Your task to perform on an android device: Go to internet settings Image 0: 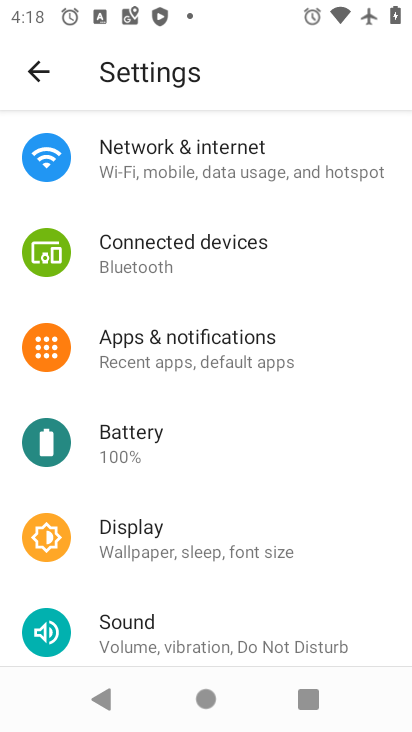
Step 0: click (145, 143)
Your task to perform on an android device: Go to internet settings Image 1: 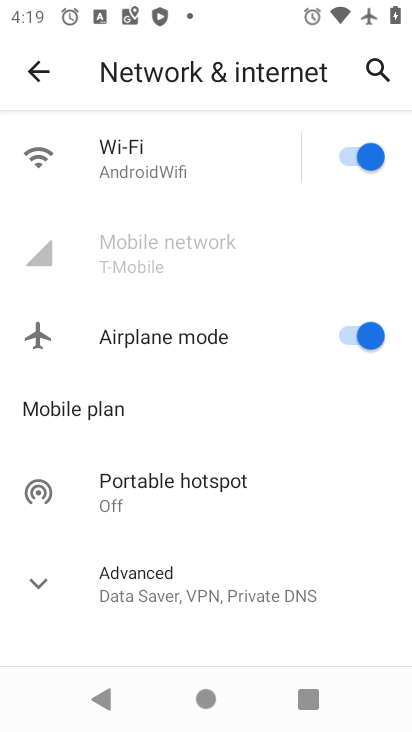
Step 1: drag from (248, 530) to (280, 206)
Your task to perform on an android device: Go to internet settings Image 2: 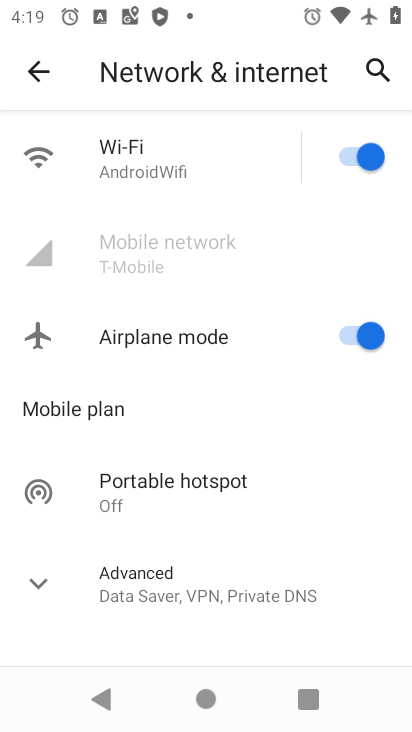
Step 2: click (35, 578)
Your task to perform on an android device: Go to internet settings Image 3: 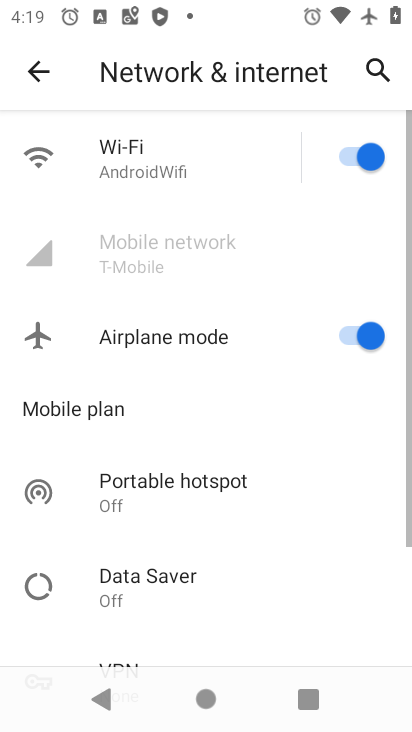
Step 3: task complete